Your task to perform on an android device: Open accessibility settings Image 0: 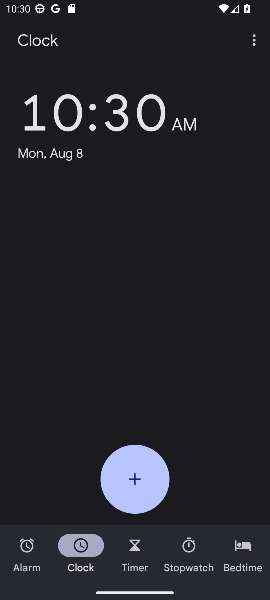
Step 0: press home button
Your task to perform on an android device: Open accessibility settings Image 1: 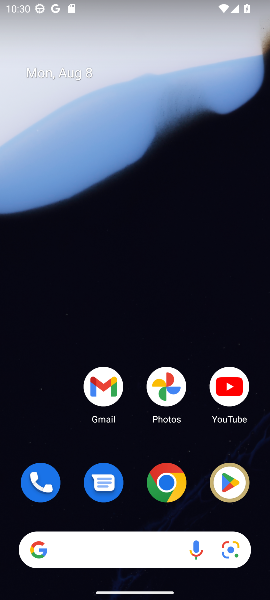
Step 1: drag from (136, 442) to (148, 14)
Your task to perform on an android device: Open accessibility settings Image 2: 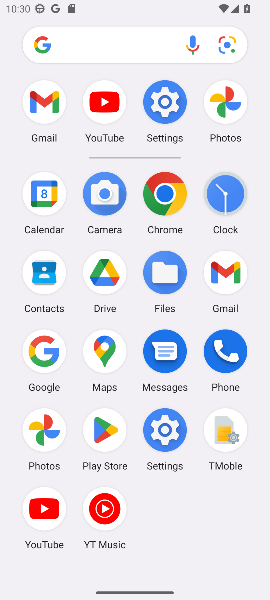
Step 2: click (163, 430)
Your task to perform on an android device: Open accessibility settings Image 3: 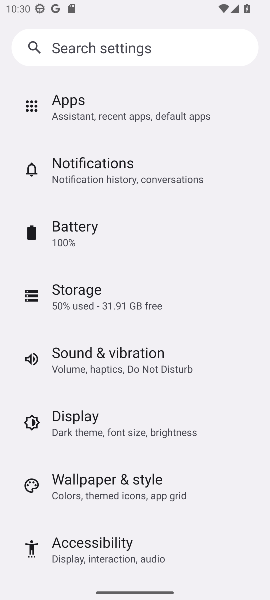
Step 3: click (105, 538)
Your task to perform on an android device: Open accessibility settings Image 4: 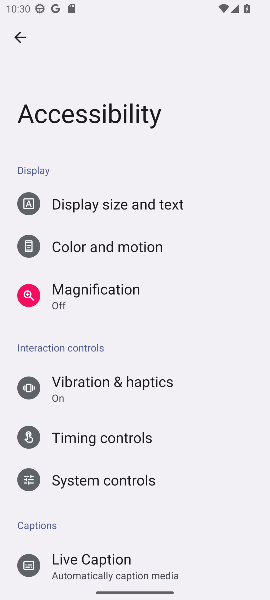
Step 4: task complete